Your task to perform on an android device: Open eBay Image 0: 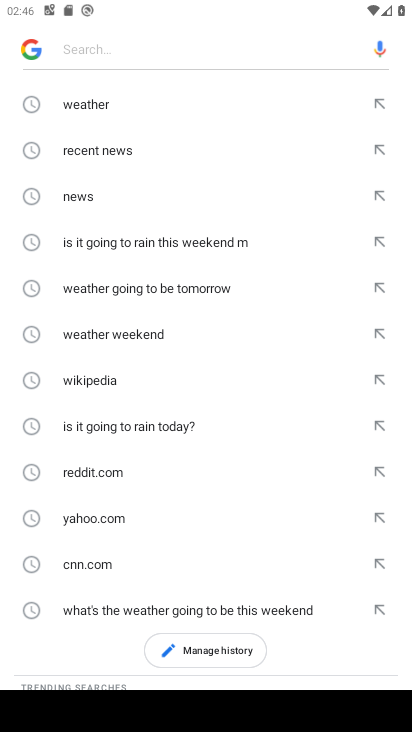
Step 0: press home button
Your task to perform on an android device: Open eBay Image 1: 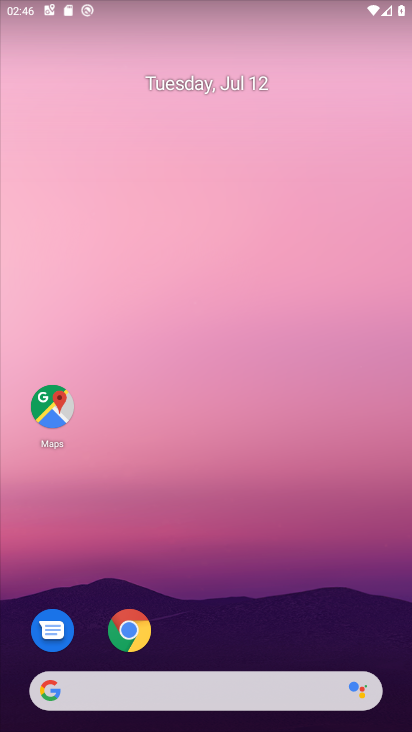
Step 1: click (128, 630)
Your task to perform on an android device: Open eBay Image 2: 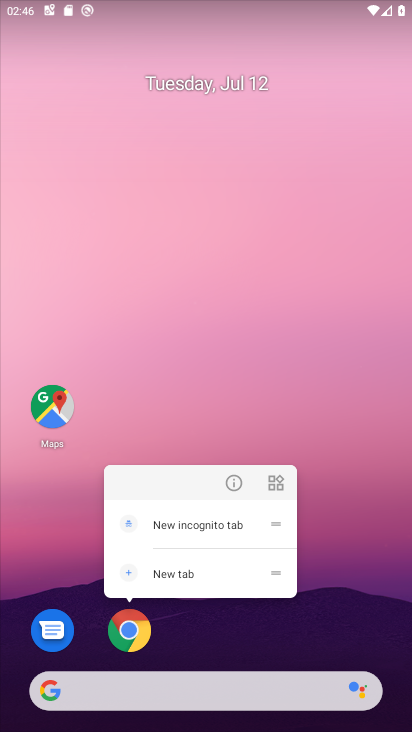
Step 2: click (129, 630)
Your task to perform on an android device: Open eBay Image 3: 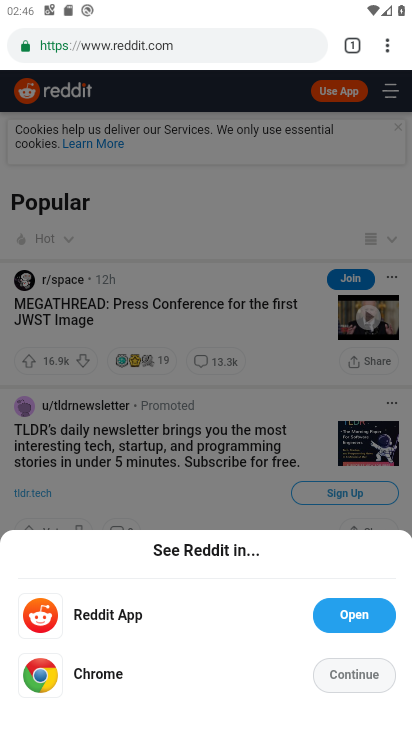
Step 3: click (214, 45)
Your task to perform on an android device: Open eBay Image 4: 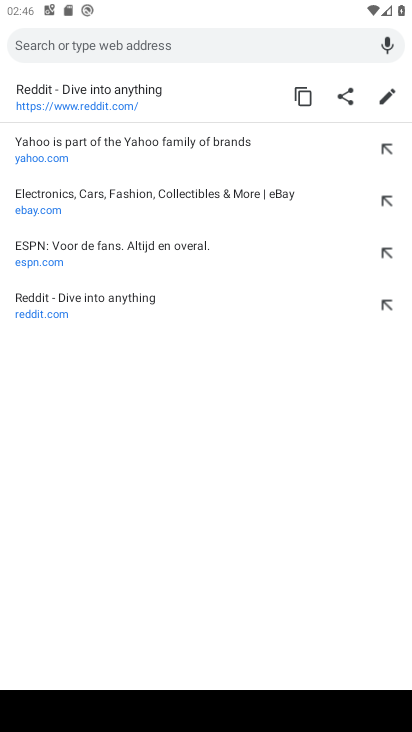
Step 4: type "eBay"
Your task to perform on an android device: Open eBay Image 5: 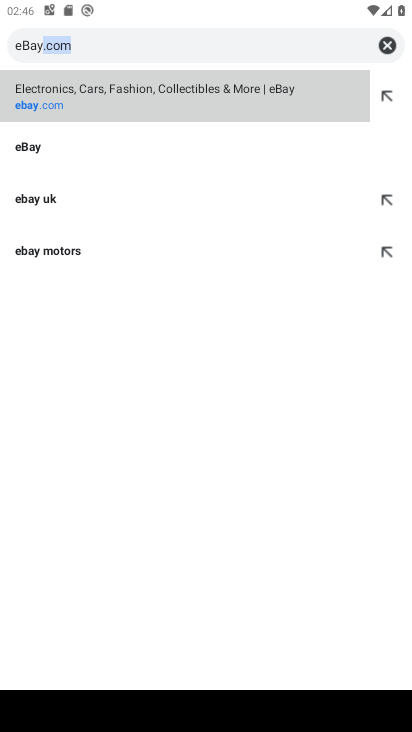
Step 5: click (87, 91)
Your task to perform on an android device: Open eBay Image 6: 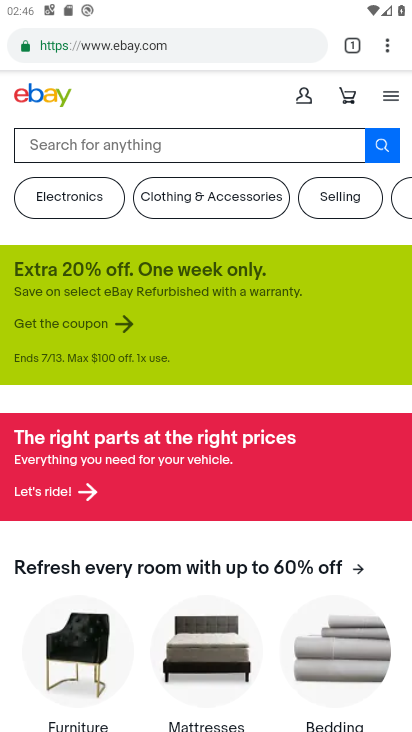
Step 6: task complete